Your task to perform on an android device: change the clock display to analog Image 0: 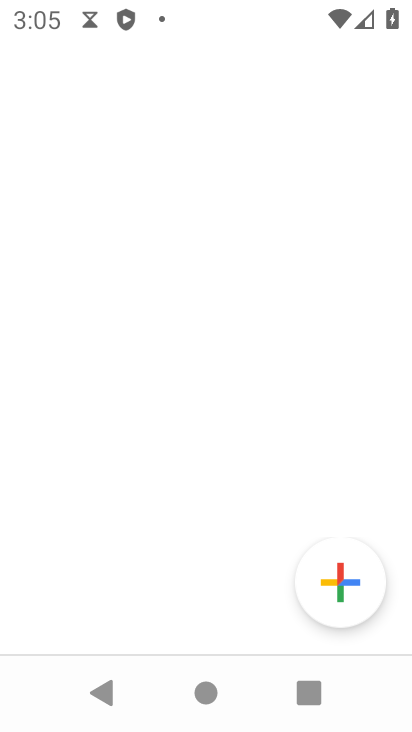
Step 0: drag from (377, 484) to (269, 120)
Your task to perform on an android device: change the clock display to analog Image 1: 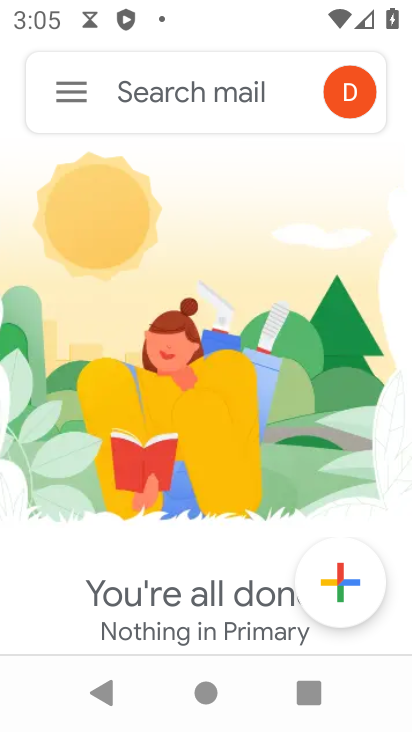
Step 1: press back button
Your task to perform on an android device: change the clock display to analog Image 2: 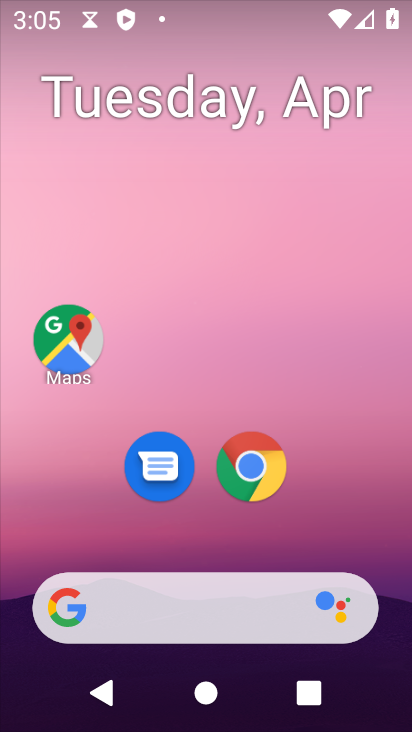
Step 2: drag from (379, 536) to (258, 56)
Your task to perform on an android device: change the clock display to analog Image 3: 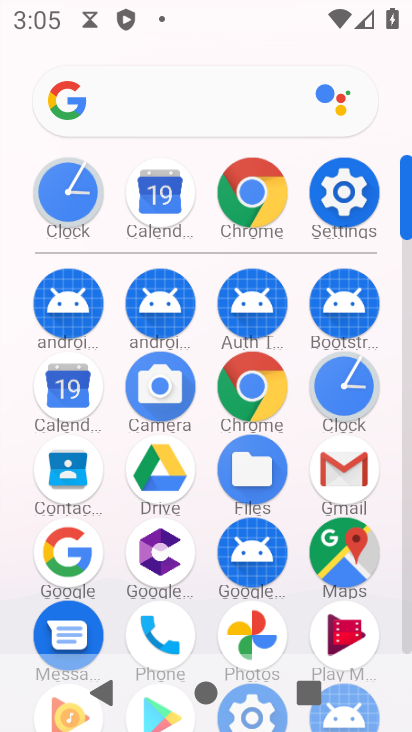
Step 3: drag from (3, 485) to (4, 241)
Your task to perform on an android device: change the clock display to analog Image 4: 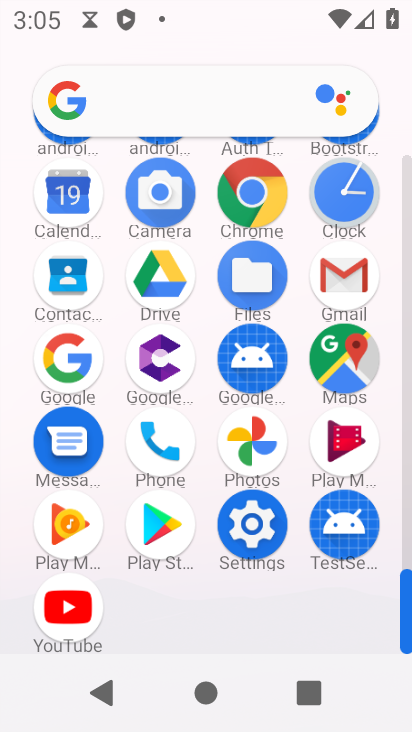
Step 4: drag from (10, 437) to (6, 259)
Your task to perform on an android device: change the clock display to analog Image 5: 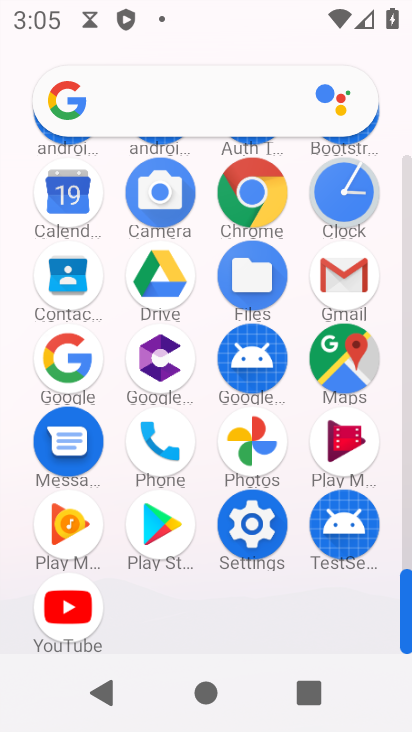
Step 5: drag from (23, 192) to (14, 380)
Your task to perform on an android device: change the clock display to analog Image 6: 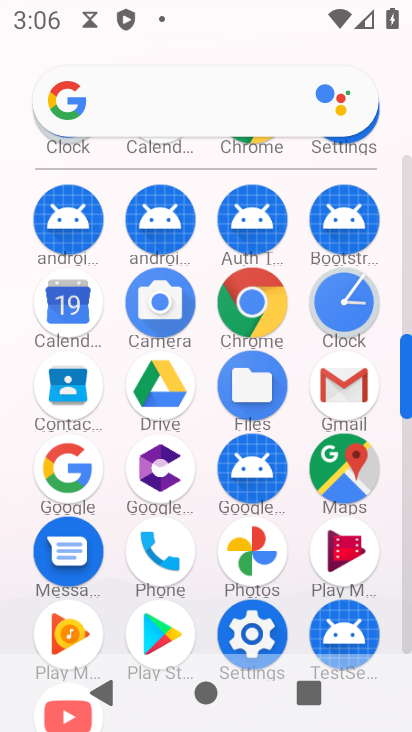
Step 6: drag from (16, 233) to (9, 454)
Your task to perform on an android device: change the clock display to analog Image 7: 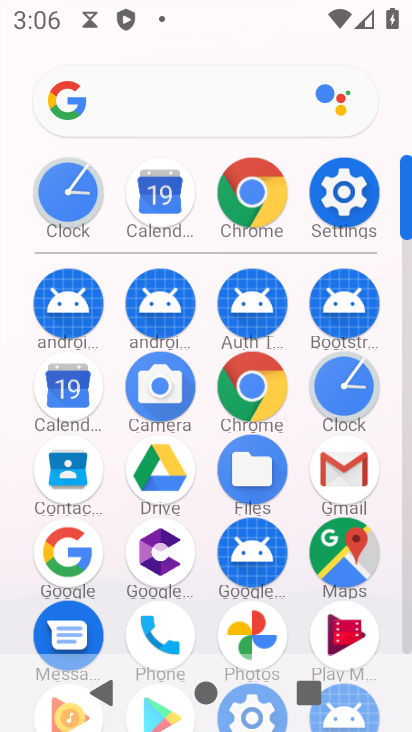
Step 7: click (344, 394)
Your task to perform on an android device: change the clock display to analog Image 8: 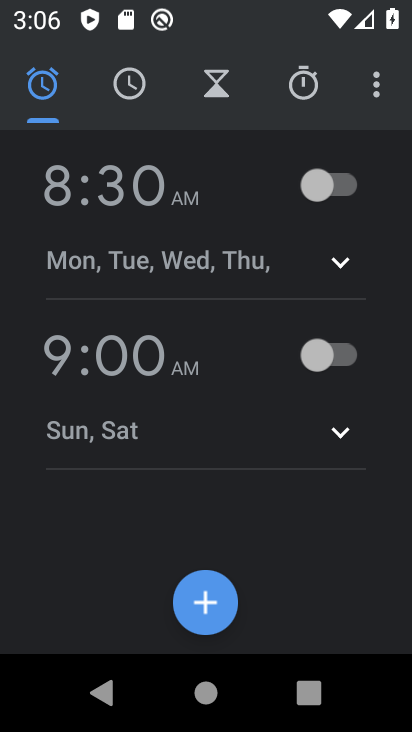
Step 8: click (363, 82)
Your task to perform on an android device: change the clock display to analog Image 9: 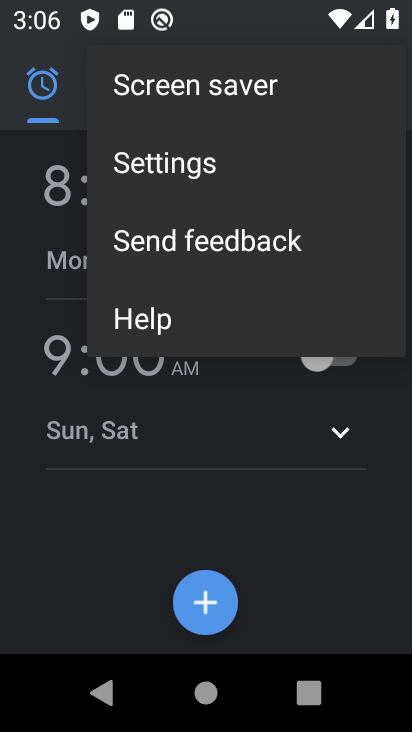
Step 9: click (198, 148)
Your task to perform on an android device: change the clock display to analog Image 10: 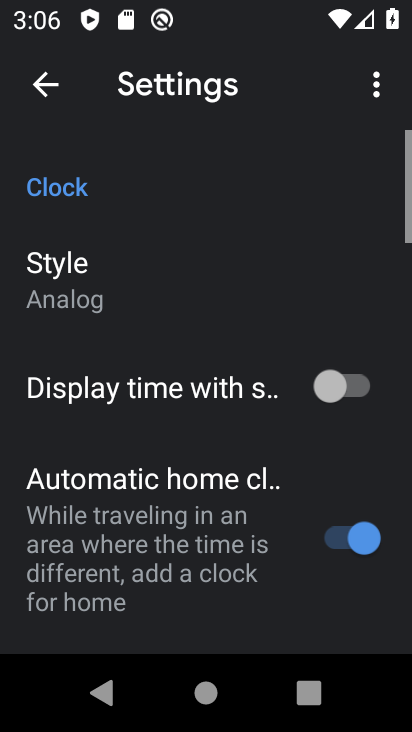
Step 10: click (124, 287)
Your task to perform on an android device: change the clock display to analog Image 11: 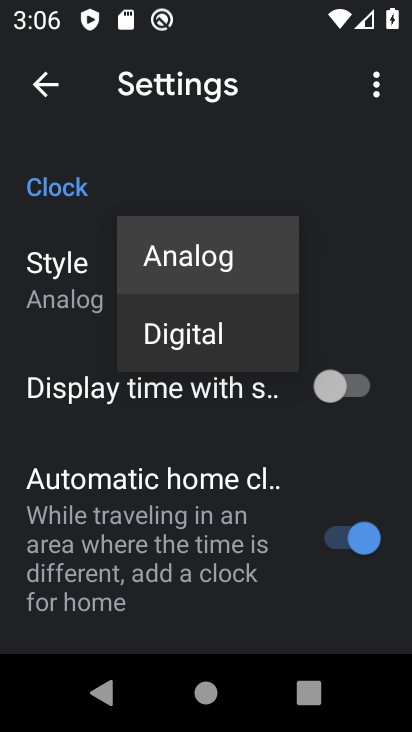
Step 11: click (180, 243)
Your task to perform on an android device: change the clock display to analog Image 12: 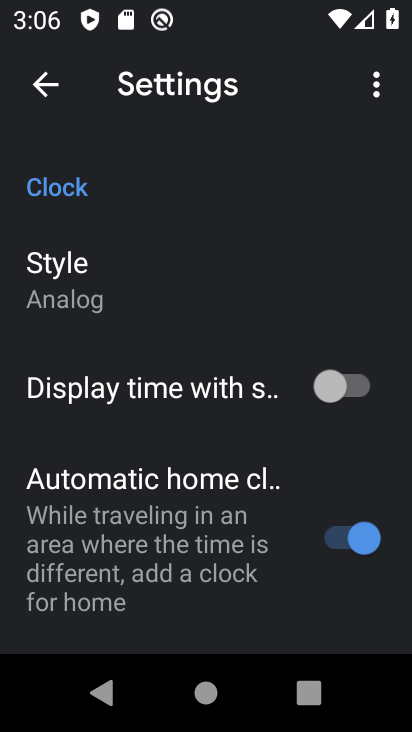
Step 12: task complete